Your task to perform on an android device: Is it going to rain tomorrow? Image 0: 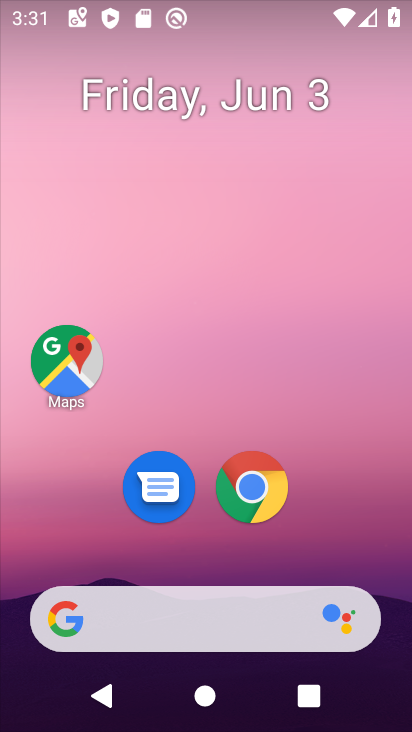
Step 0: drag from (232, 538) to (294, 49)
Your task to perform on an android device: Is it going to rain tomorrow? Image 1: 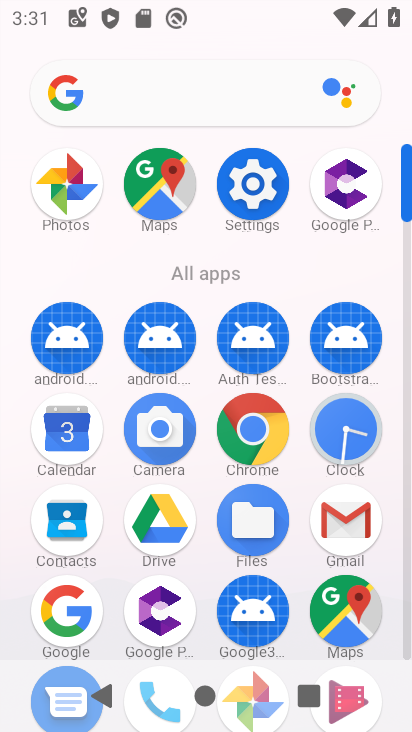
Step 1: click (166, 82)
Your task to perform on an android device: Is it going to rain tomorrow? Image 2: 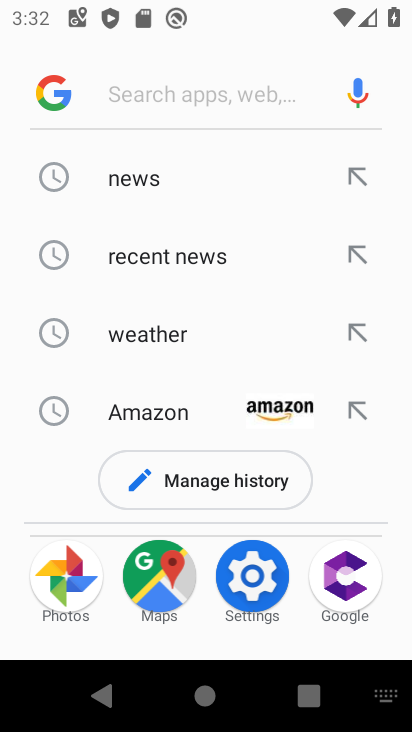
Step 2: click (134, 96)
Your task to perform on an android device: Is it going to rain tomorrow? Image 3: 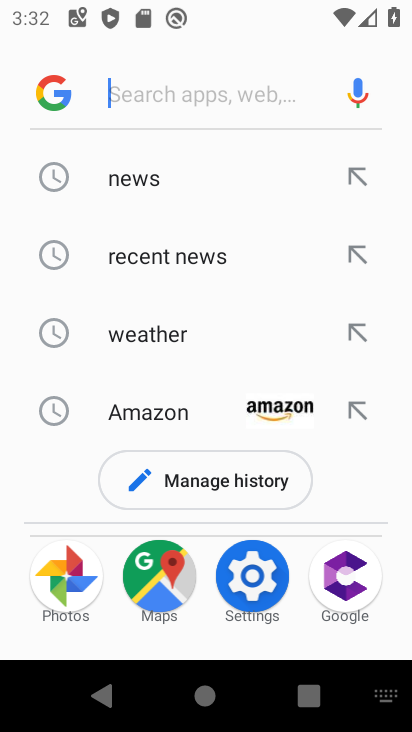
Step 3: click (134, 96)
Your task to perform on an android device: Is it going to rain tomorrow? Image 4: 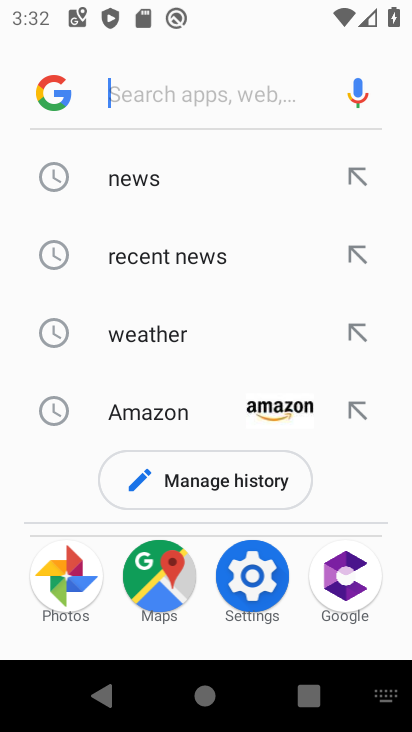
Step 4: type "rain tomorrow?"
Your task to perform on an android device: Is it going to rain tomorrow? Image 5: 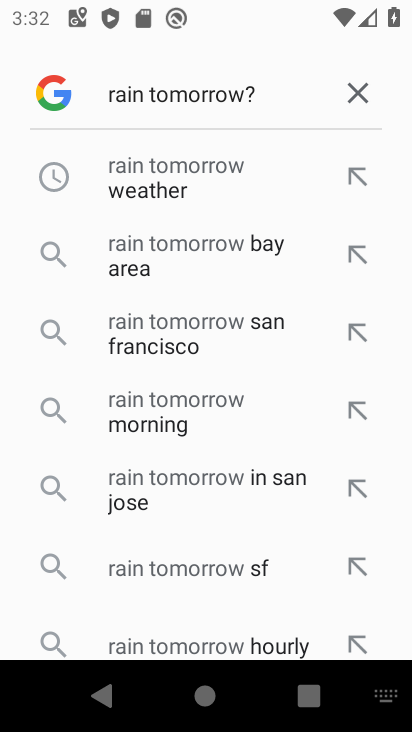
Step 5: type ""
Your task to perform on an android device: Is it going to rain tomorrow? Image 6: 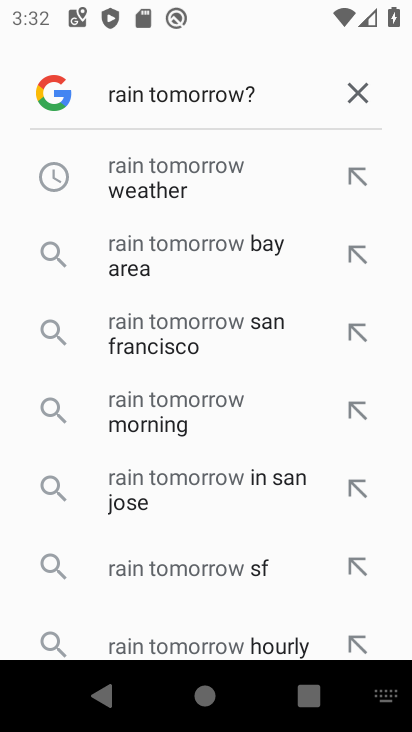
Step 6: click (151, 171)
Your task to perform on an android device: Is it going to rain tomorrow? Image 7: 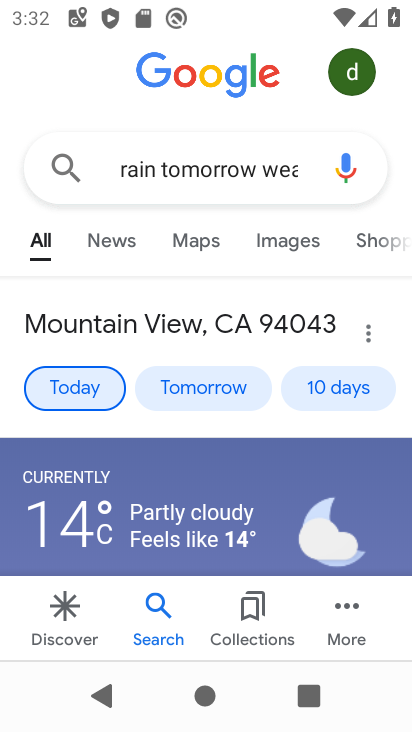
Step 7: task complete